Your task to perform on an android device: Search for sushi restaurants on Maps Image 0: 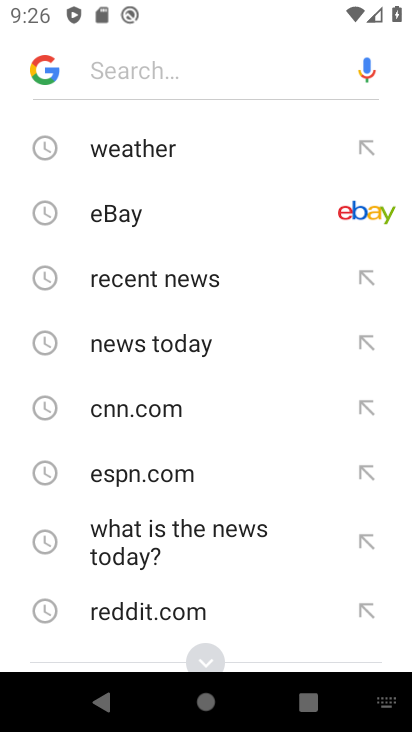
Step 0: press home button
Your task to perform on an android device: Search for sushi restaurants on Maps Image 1: 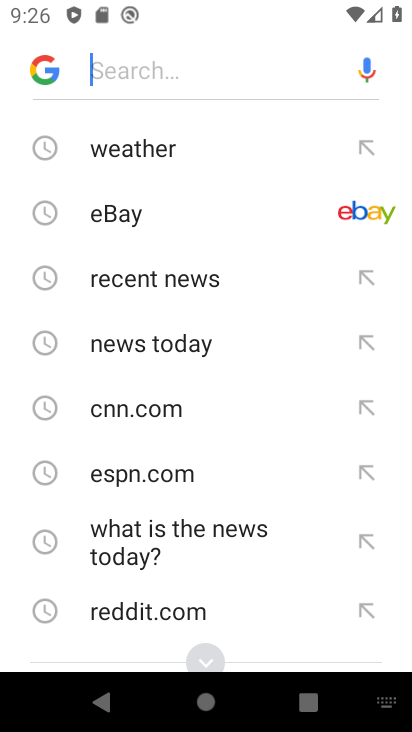
Step 1: press home button
Your task to perform on an android device: Search for sushi restaurants on Maps Image 2: 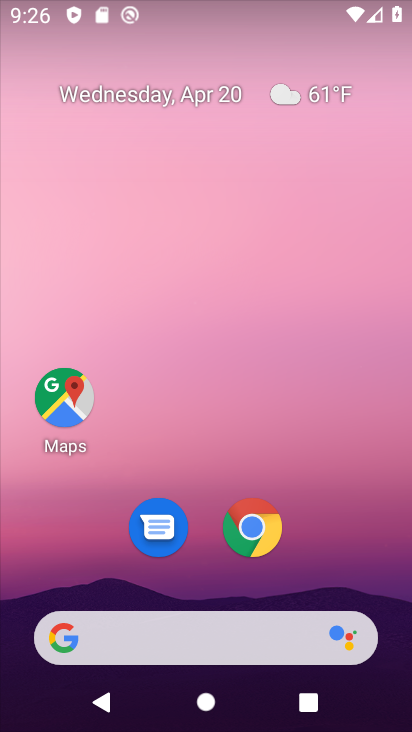
Step 2: click (65, 405)
Your task to perform on an android device: Search for sushi restaurants on Maps Image 3: 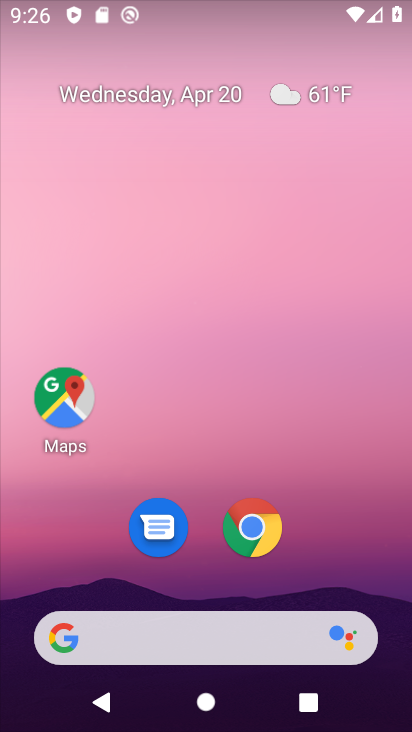
Step 3: click (61, 401)
Your task to perform on an android device: Search for sushi restaurants on Maps Image 4: 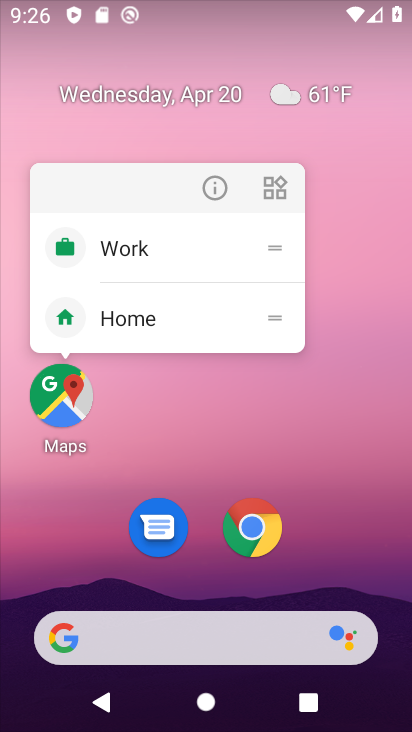
Step 4: click (51, 393)
Your task to perform on an android device: Search for sushi restaurants on Maps Image 5: 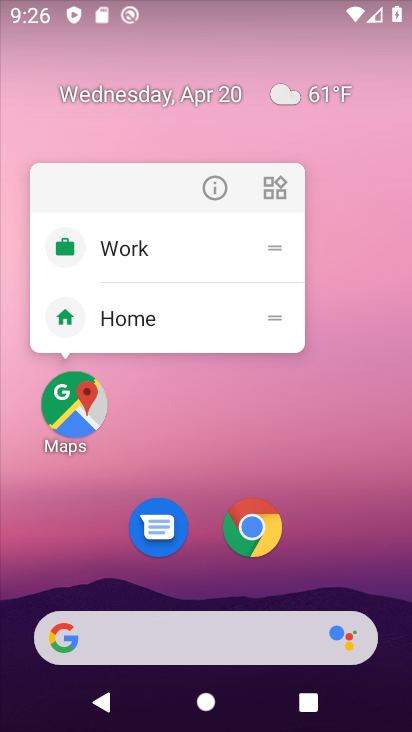
Step 5: click (60, 398)
Your task to perform on an android device: Search for sushi restaurants on Maps Image 6: 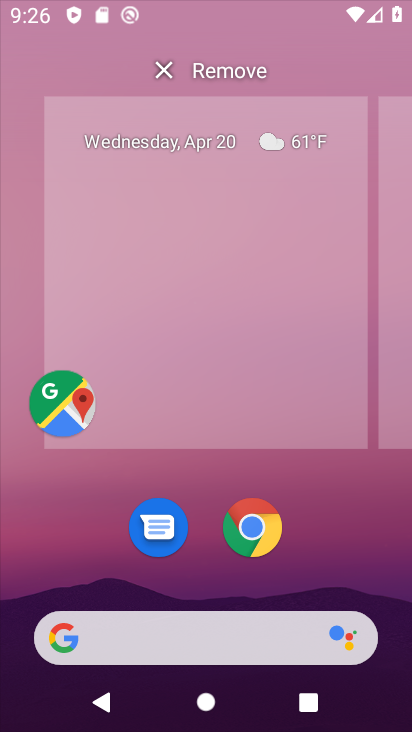
Step 6: click (58, 401)
Your task to perform on an android device: Search for sushi restaurants on Maps Image 7: 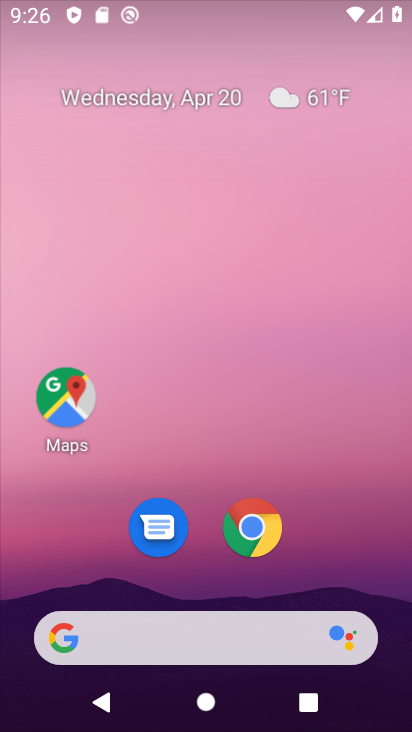
Step 7: click (59, 400)
Your task to perform on an android device: Search for sushi restaurants on Maps Image 8: 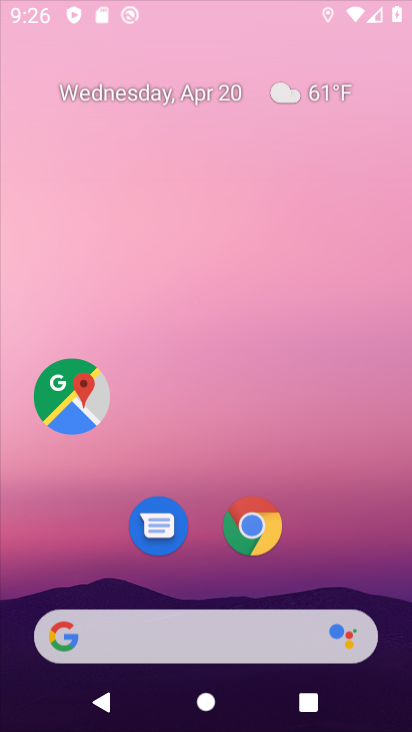
Step 8: click (180, 154)
Your task to perform on an android device: Search for sushi restaurants on Maps Image 9: 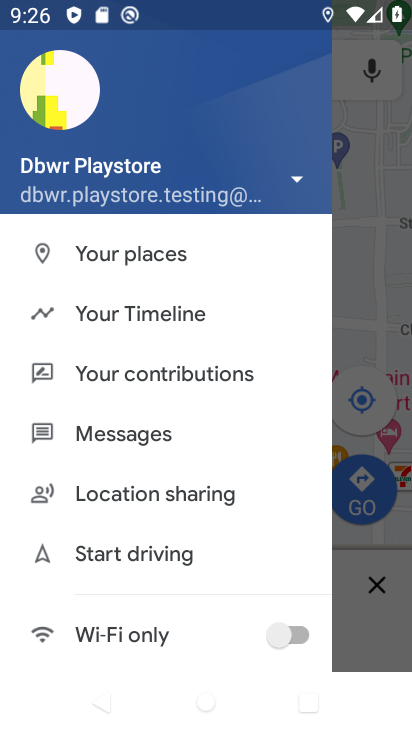
Step 9: click (170, 314)
Your task to perform on an android device: Search for sushi restaurants on Maps Image 10: 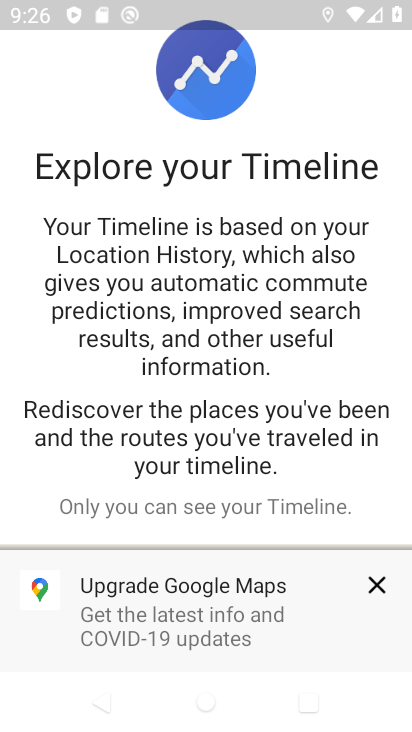
Step 10: click (371, 587)
Your task to perform on an android device: Search for sushi restaurants on Maps Image 11: 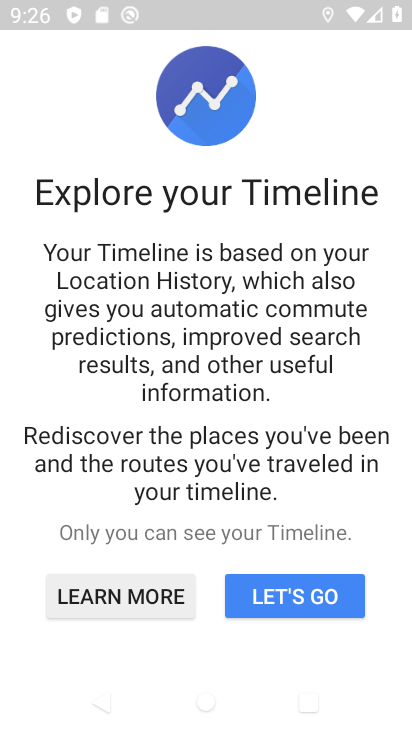
Step 11: click (321, 588)
Your task to perform on an android device: Search for sushi restaurants on Maps Image 12: 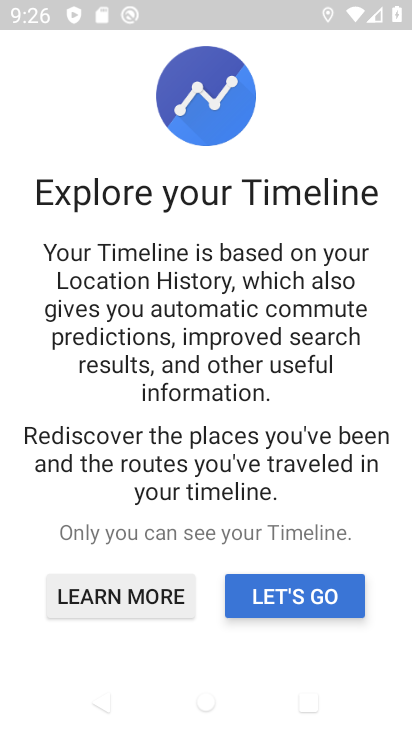
Step 12: click (323, 587)
Your task to perform on an android device: Search for sushi restaurants on Maps Image 13: 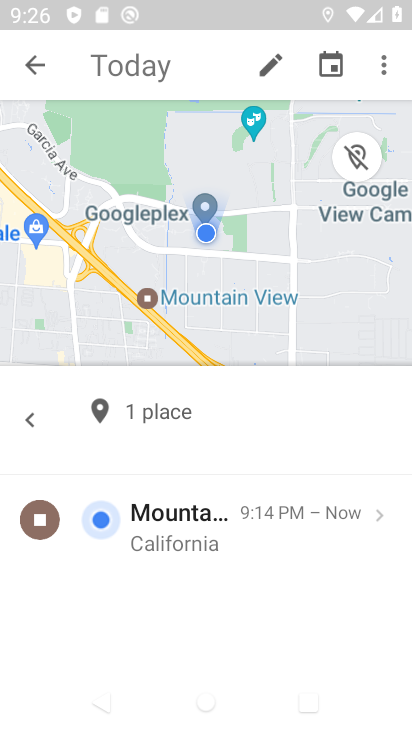
Step 13: click (101, 60)
Your task to perform on an android device: Search for sushi restaurants on Maps Image 14: 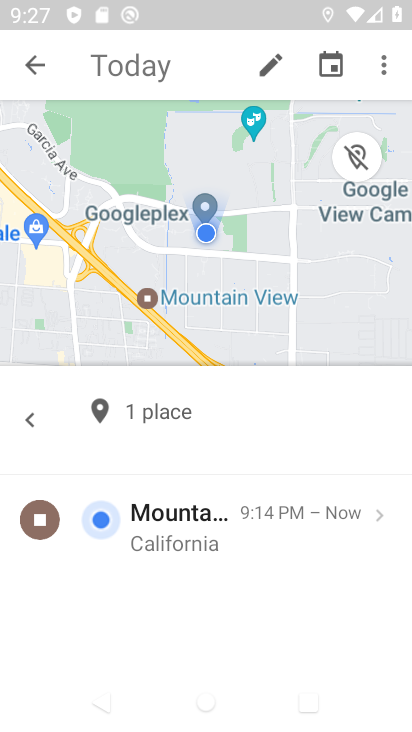
Step 14: type "sushi resturants"
Your task to perform on an android device: Search for sushi restaurants on Maps Image 15: 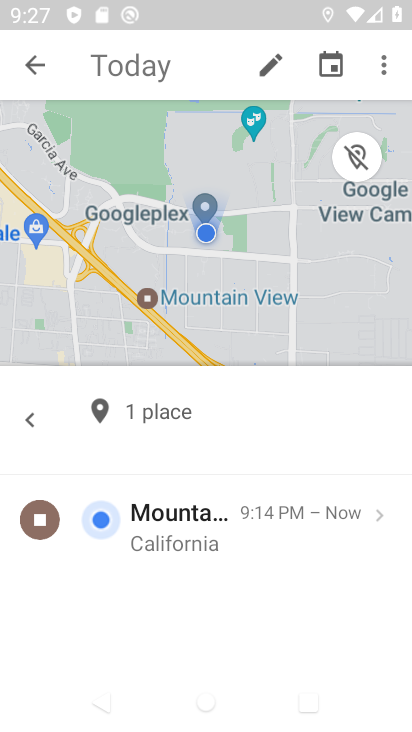
Step 15: task complete